Your task to perform on an android device: Do I have any events tomorrow? Image 0: 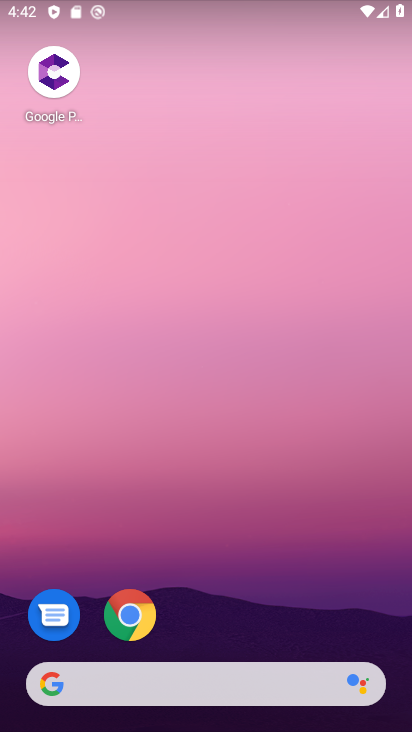
Step 0: drag from (287, 583) to (298, 189)
Your task to perform on an android device: Do I have any events tomorrow? Image 1: 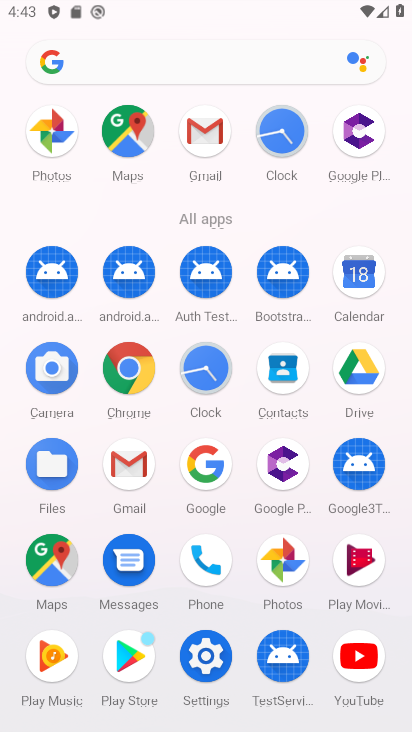
Step 1: click (364, 273)
Your task to perform on an android device: Do I have any events tomorrow? Image 2: 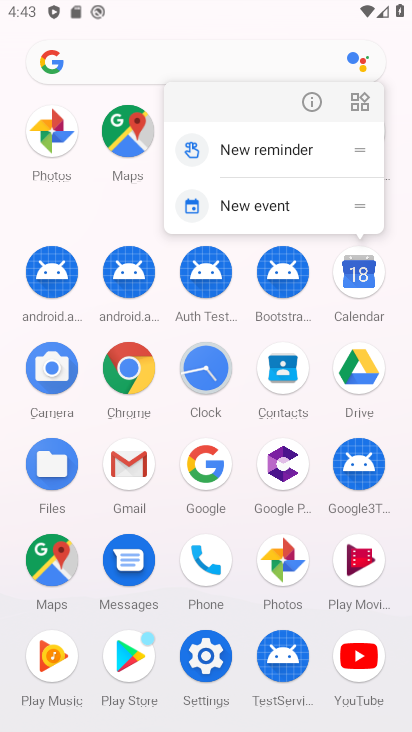
Step 2: click (360, 276)
Your task to perform on an android device: Do I have any events tomorrow? Image 3: 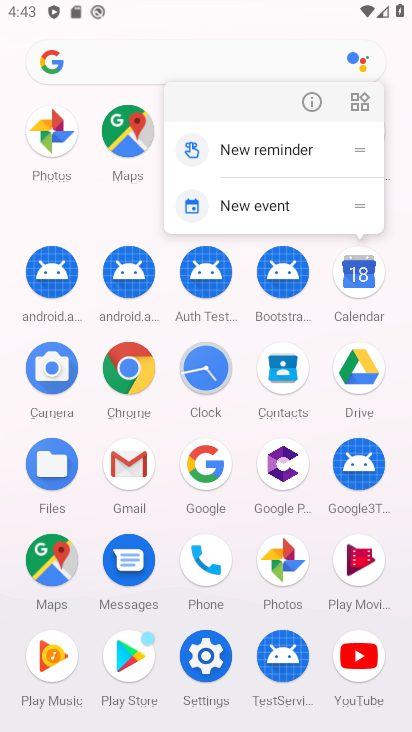
Step 3: click (360, 276)
Your task to perform on an android device: Do I have any events tomorrow? Image 4: 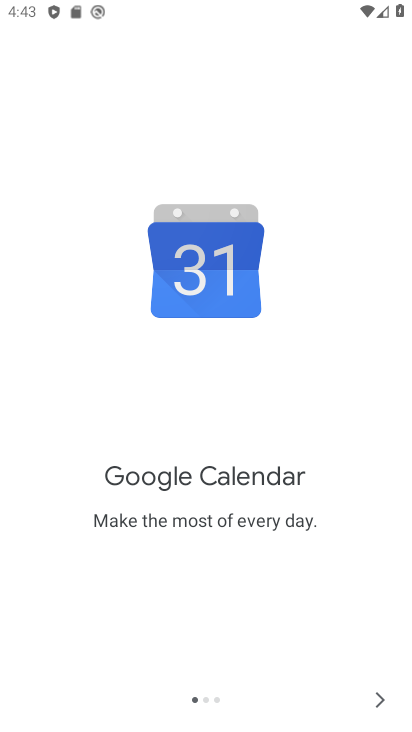
Step 4: click (377, 695)
Your task to perform on an android device: Do I have any events tomorrow? Image 5: 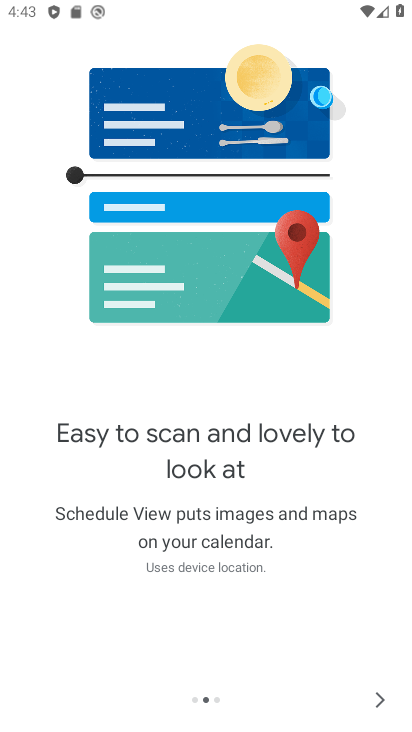
Step 5: click (377, 695)
Your task to perform on an android device: Do I have any events tomorrow? Image 6: 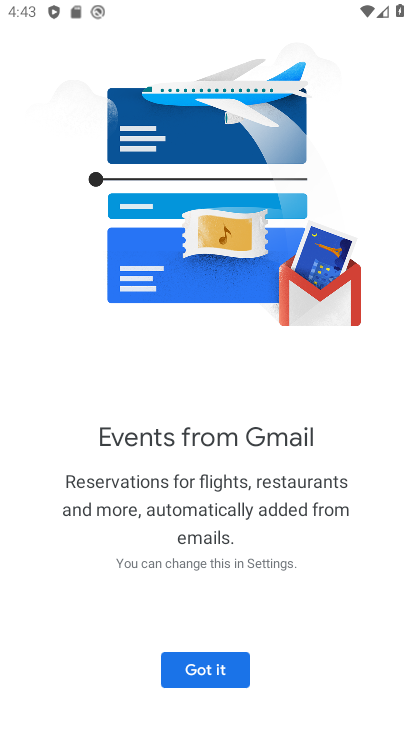
Step 6: click (201, 673)
Your task to perform on an android device: Do I have any events tomorrow? Image 7: 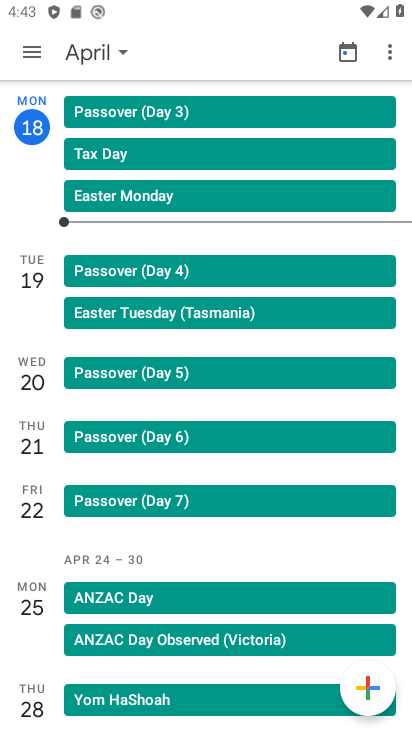
Step 7: click (109, 52)
Your task to perform on an android device: Do I have any events tomorrow? Image 8: 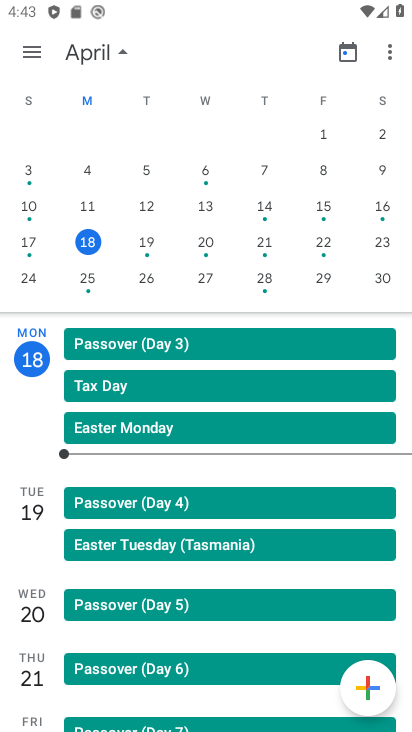
Step 8: click (142, 238)
Your task to perform on an android device: Do I have any events tomorrow? Image 9: 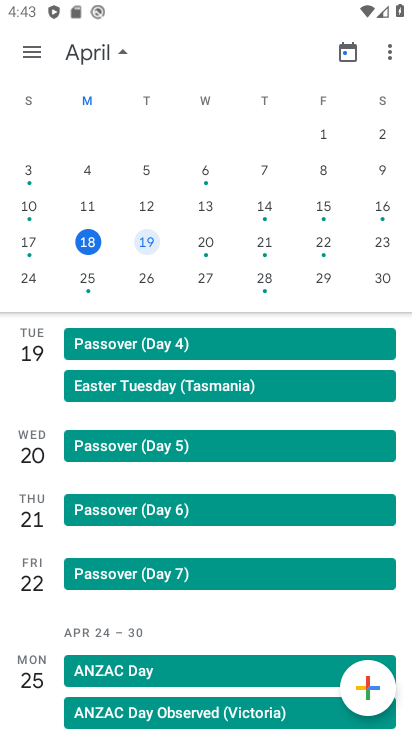
Step 9: task complete